Your task to perform on an android device: turn off smart reply in the gmail app Image 0: 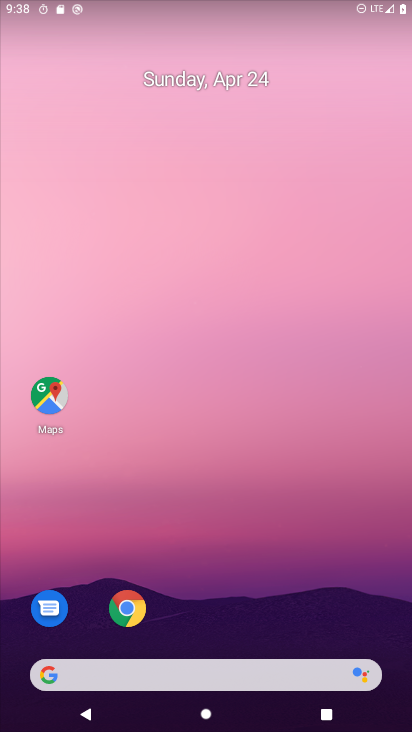
Step 0: drag from (266, 557) to (245, 56)
Your task to perform on an android device: turn off smart reply in the gmail app Image 1: 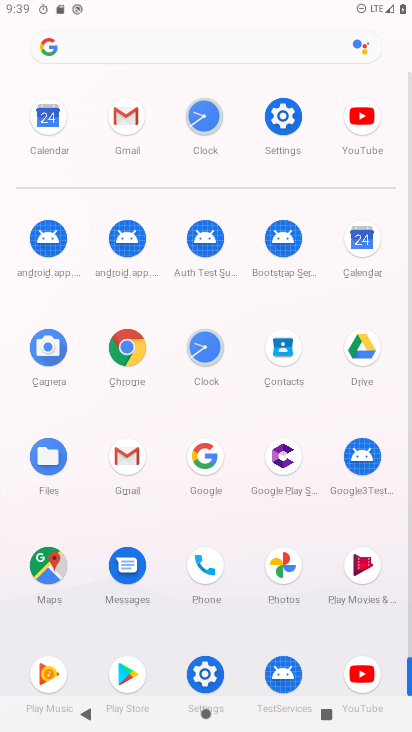
Step 1: click (121, 109)
Your task to perform on an android device: turn off smart reply in the gmail app Image 2: 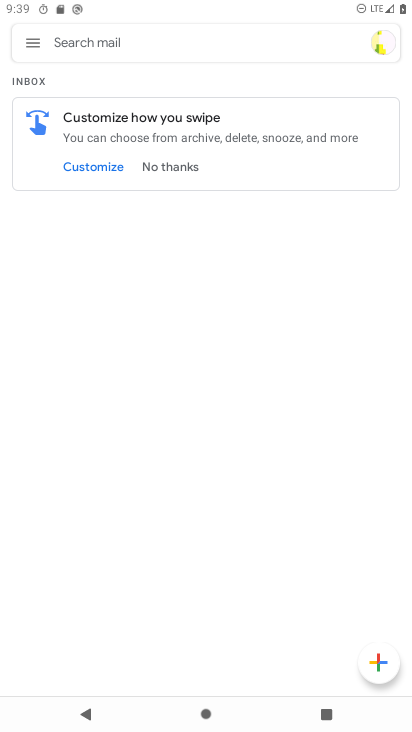
Step 2: click (32, 40)
Your task to perform on an android device: turn off smart reply in the gmail app Image 3: 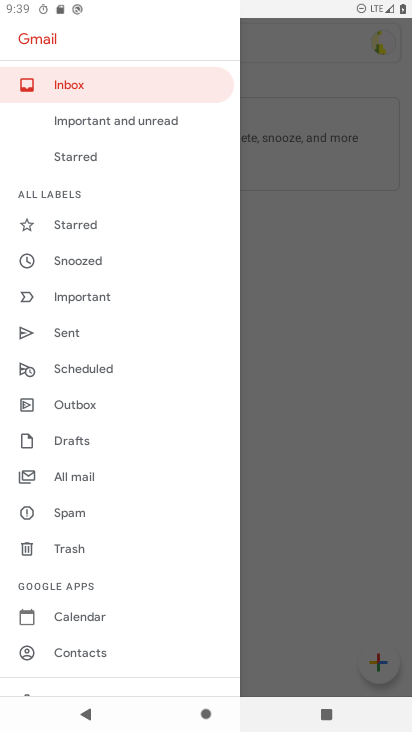
Step 3: drag from (132, 235) to (117, 139)
Your task to perform on an android device: turn off smart reply in the gmail app Image 4: 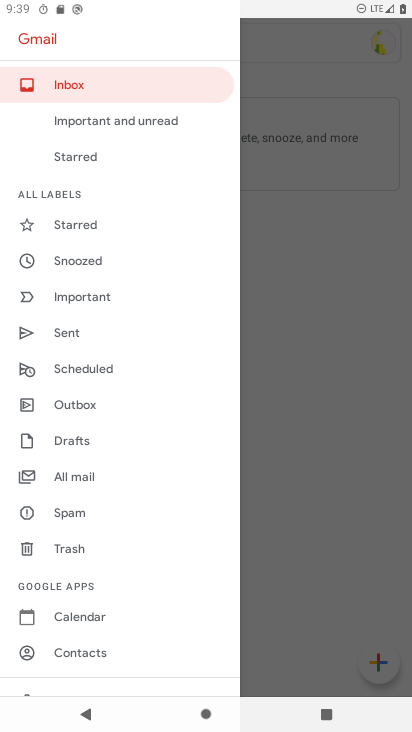
Step 4: drag from (120, 467) to (132, 274)
Your task to perform on an android device: turn off smart reply in the gmail app Image 5: 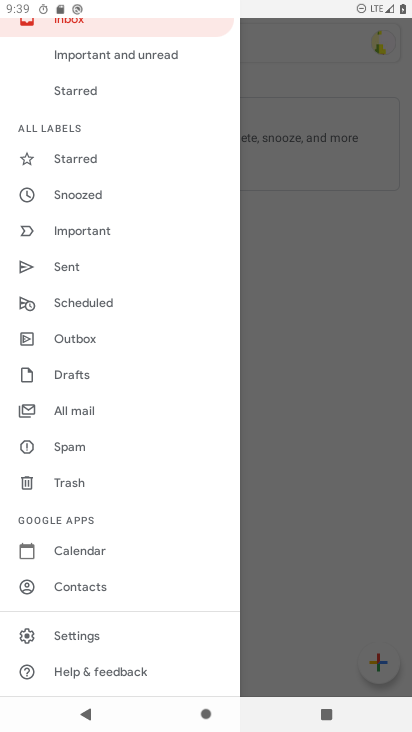
Step 5: click (96, 637)
Your task to perform on an android device: turn off smart reply in the gmail app Image 6: 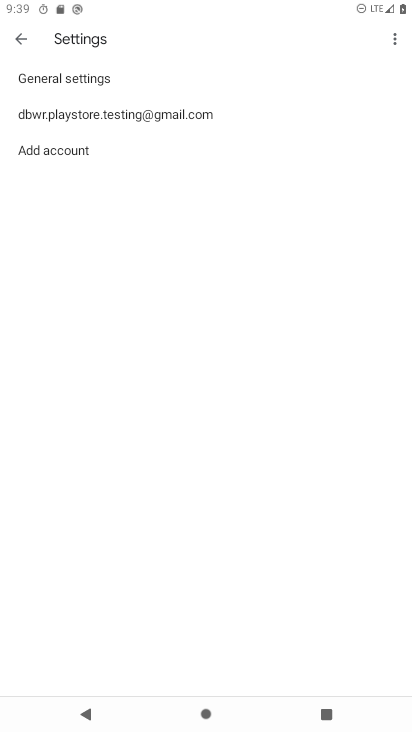
Step 6: click (183, 111)
Your task to perform on an android device: turn off smart reply in the gmail app Image 7: 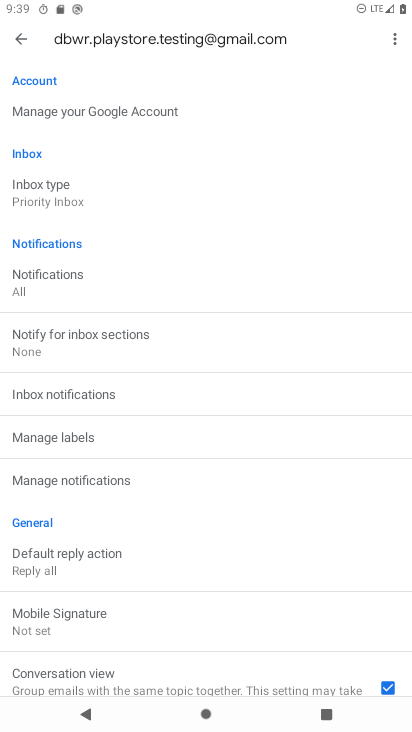
Step 7: drag from (241, 614) to (226, 121)
Your task to perform on an android device: turn off smart reply in the gmail app Image 8: 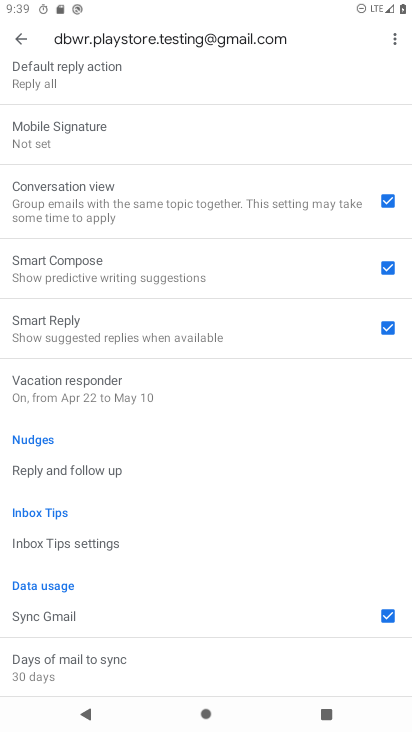
Step 8: click (385, 324)
Your task to perform on an android device: turn off smart reply in the gmail app Image 9: 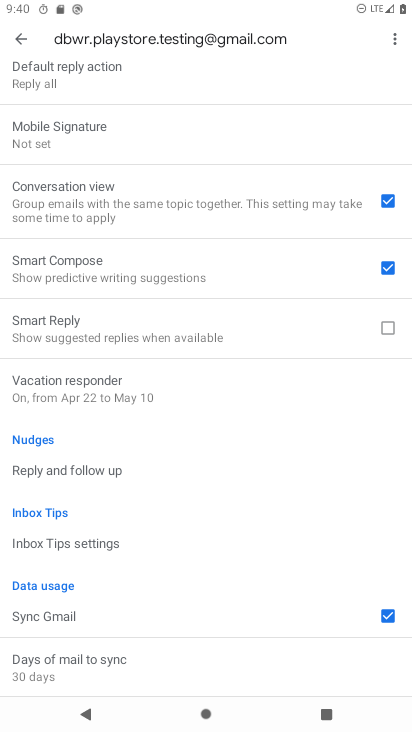
Step 9: task complete